Your task to perform on an android device: open the mobile data screen to see how much data has been used Image 0: 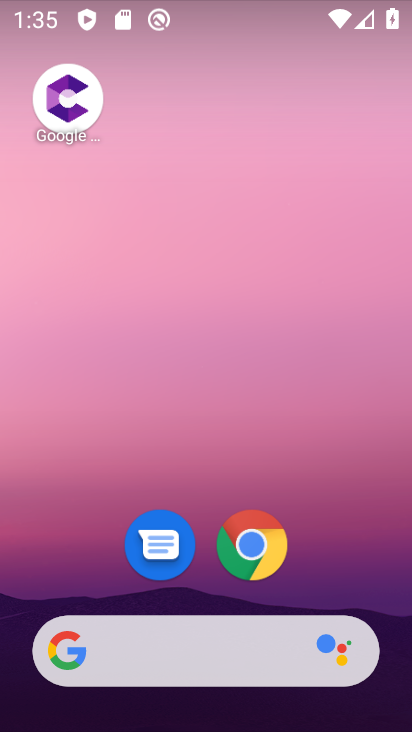
Step 0: drag from (363, 509) to (356, 212)
Your task to perform on an android device: open the mobile data screen to see how much data has been used Image 1: 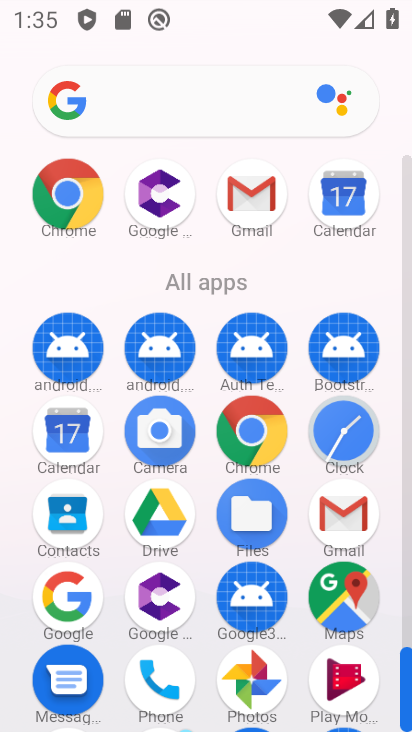
Step 1: drag from (202, 472) to (201, 267)
Your task to perform on an android device: open the mobile data screen to see how much data has been used Image 2: 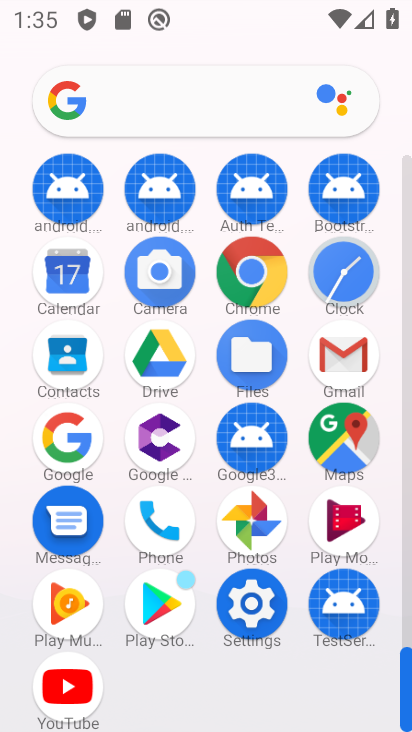
Step 2: click (255, 612)
Your task to perform on an android device: open the mobile data screen to see how much data has been used Image 3: 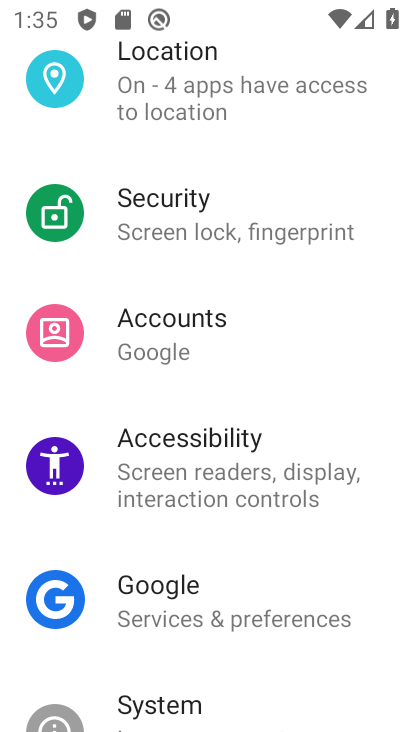
Step 3: drag from (368, 312) to (353, 484)
Your task to perform on an android device: open the mobile data screen to see how much data has been used Image 4: 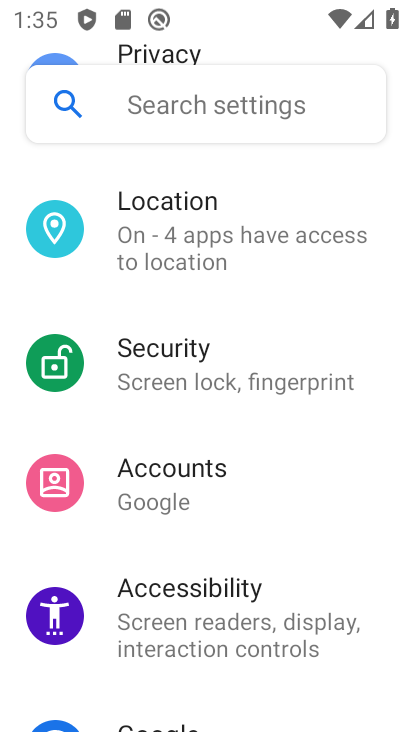
Step 4: drag from (366, 295) to (359, 435)
Your task to perform on an android device: open the mobile data screen to see how much data has been used Image 5: 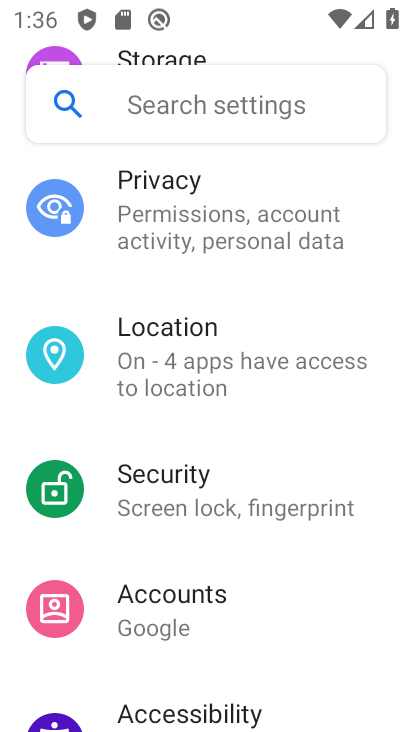
Step 5: drag from (366, 291) to (356, 394)
Your task to perform on an android device: open the mobile data screen to see how much data has been used Image 6: 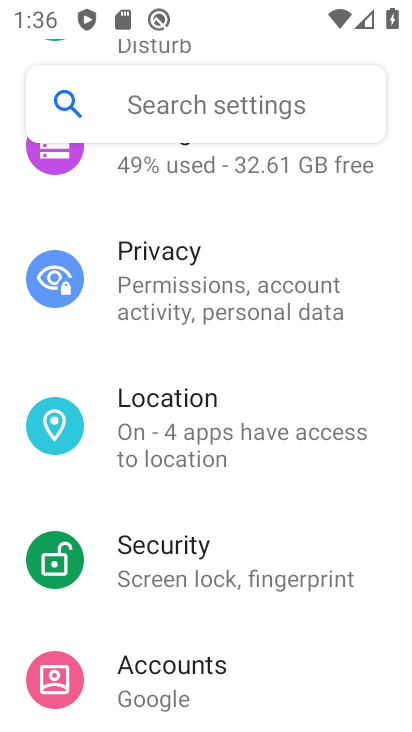
Step 6: drag from (368, 518) to (373, 420)
Your task to perform on an android device: open the mobile data screen to see how much data has been used Image 7: 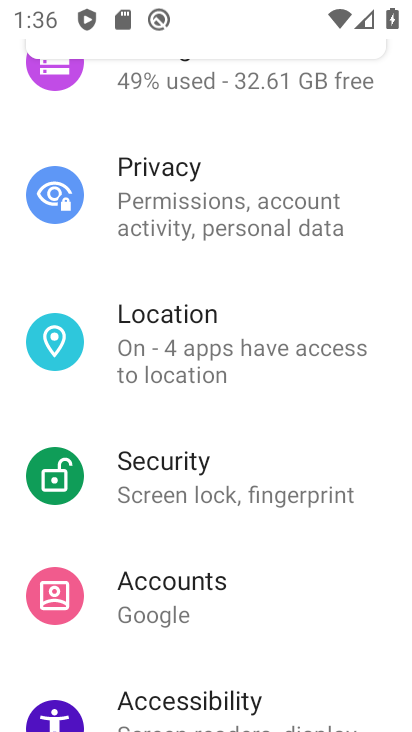
Step 7: drag from (368, 542) to (378, 493)
Your task to perform on an android device: open the mobile data screen to see how much data has been used Image 8: 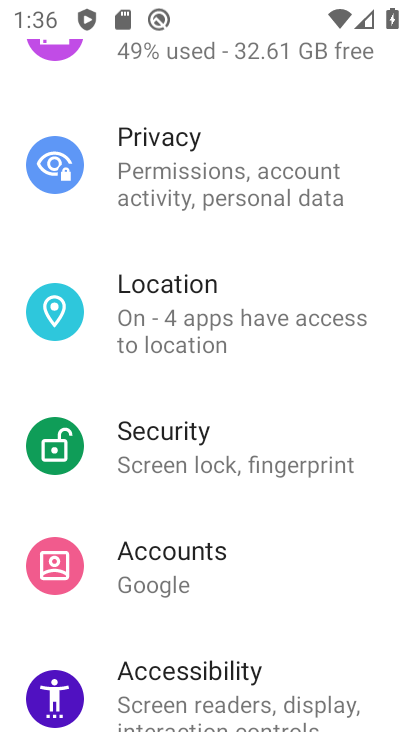
Step 8: drag from (343, 264) to (355, 454)
Your task to perform on an android device: open the mobile data screen to see how much data has been used Image 9: 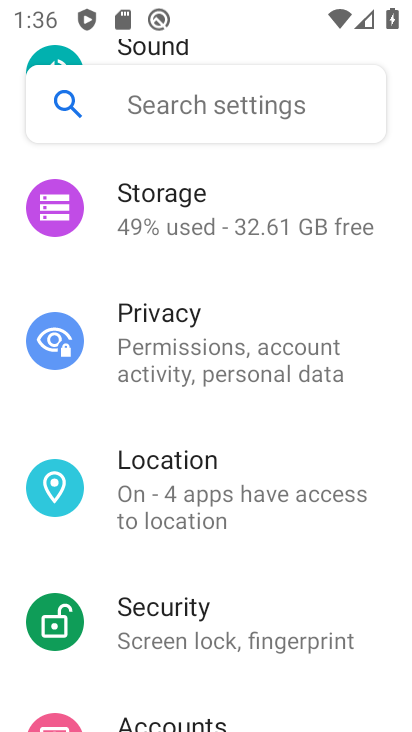
Step 9: drag from (364, 276) to (368, 451)
Your task to perform on an android device: open the mobile data screen to see how much data has been used Image 10: 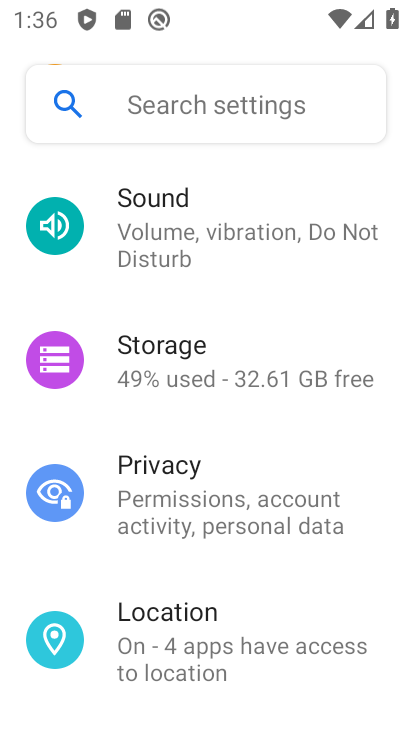
Step 10: drag from (377, 274) to (369, 420)
Your task to perform on an android device: open the mobile data screen to see how much data has been used Image 11: 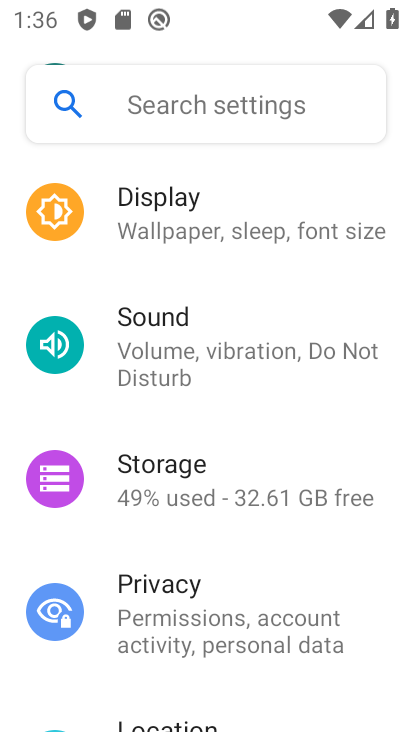
Step 11: drag from (382, 307) to (378, 368)
Your task to perform on an android device: open the mobile data screen to see how much data has been used Image 12: 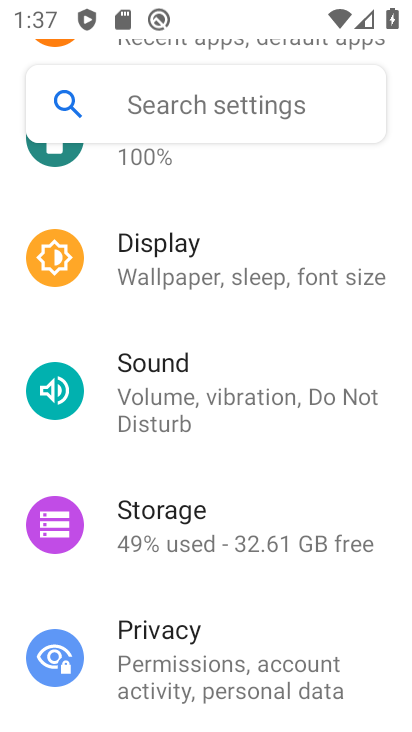
Step 12: drag from (360, 234) to (356, 425)
Your task to perform on an android device: open the mobile data screen to see how much data has been used Image 13: 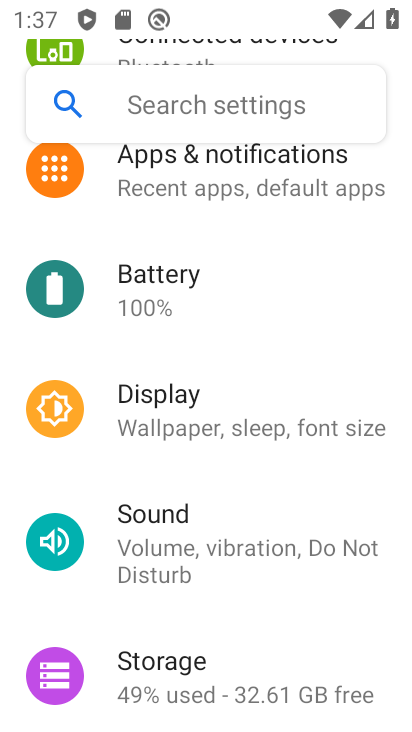
Step 13: drag from (361, 258) to (355, 376)
Your task to perform on an android device: open the mobile data screen to see how much data has been used Image 14: 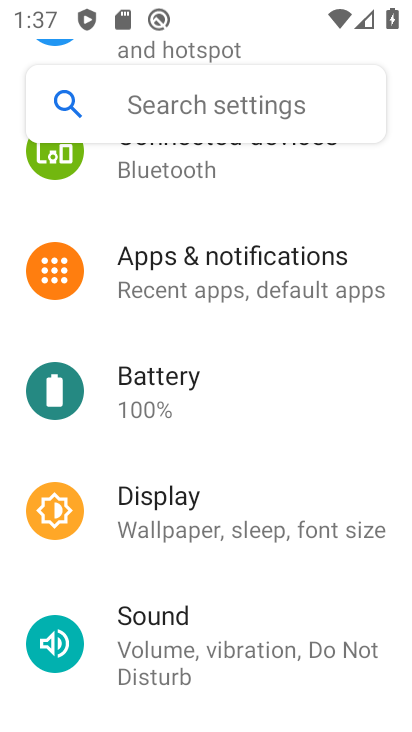
Step 14: drag from (372, 232) to (372, 277)
Your task to perform on an android device: open the mobile data screen to see how much data has been used Image 15: 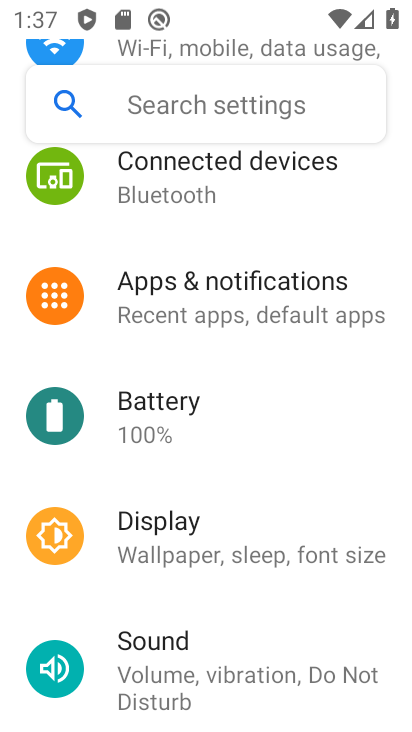
Step 15: drag from (361, 171) to (366, 324)
Your task to perform on an android device: open the mobile data screen to see how much data has been used Image 16: 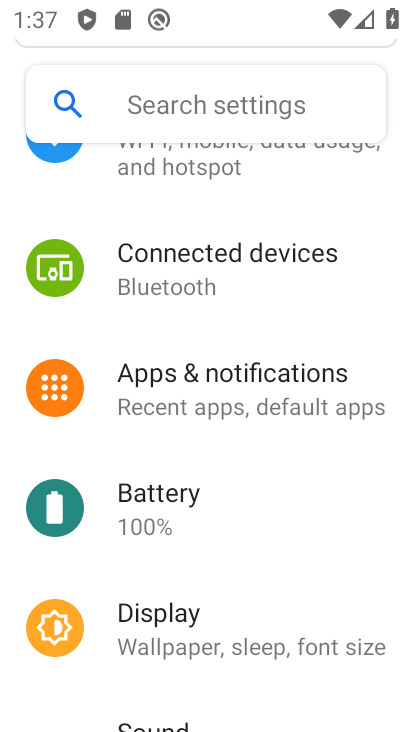
Step 16: drag from (377, 220) to (380, 374)
Your task to perform on an android device: open the mobile data screen to see how much data has been used Image 17: 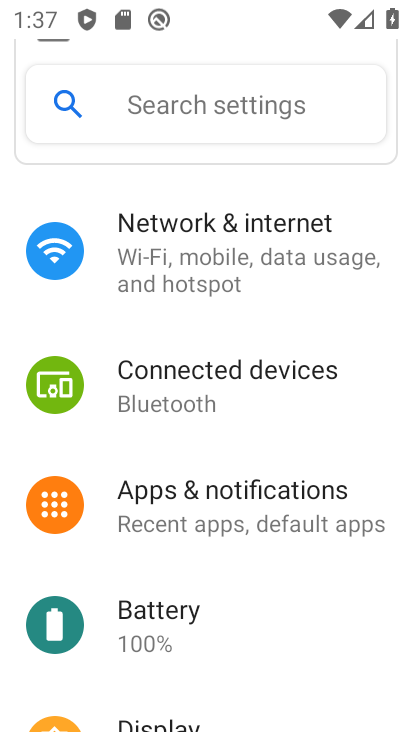
Step 17: click (308, 262)
Your task to perform on an android device: open the mobile data screen to see how much data has been used Image 18: 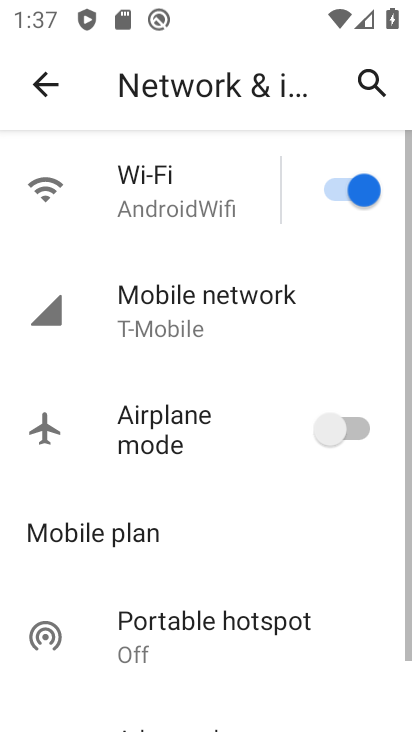
Step 18: click (277, 312)
Your task to perform on an android device: open the mobile data screen to see how much data has been used Image 19: 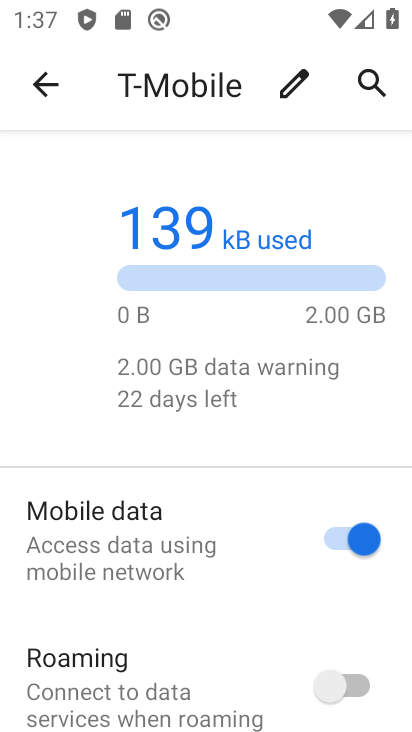
Step 19: drag from (247, 547) to (264, 338)
Your task to perform on an android device: open the mobile data screen to see how much data has been used Image 20: 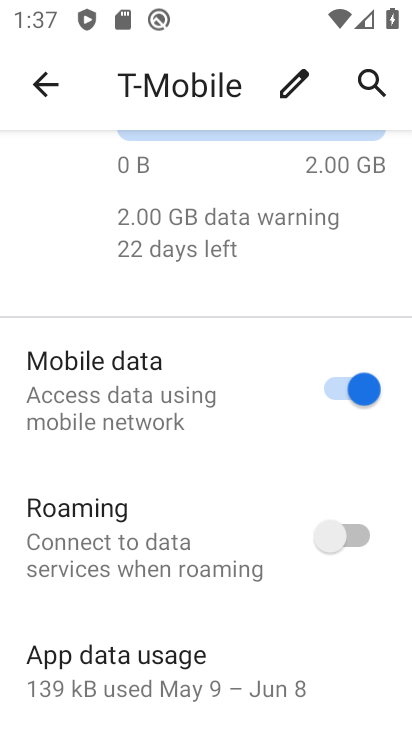
Step 20: drag from (193, 558) to (211, 352)
Your task to perform on an android device: open the mobile data screen to see how much data has been used Image 21: 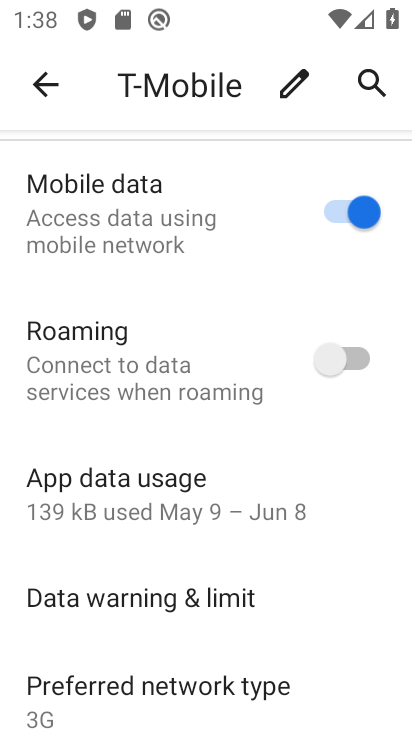
Step 21: click (179, 504)
Your task to perform on an android device: open the mobile data screen to see how much data has been used Image 22: 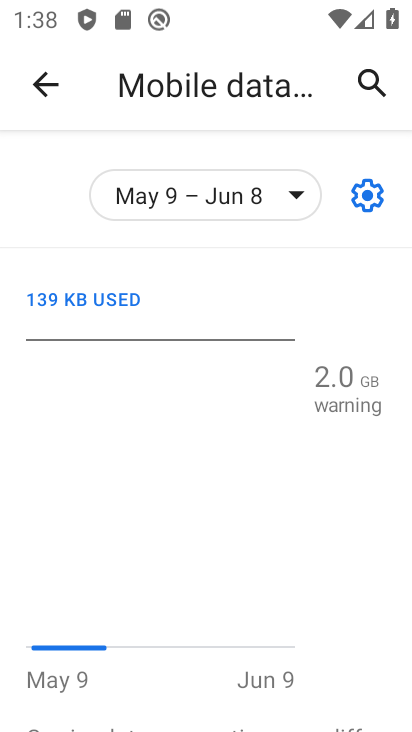
Step 22: task complete